Your task to perform on an android device: Set the phone to "Do not disturb". Image 0: 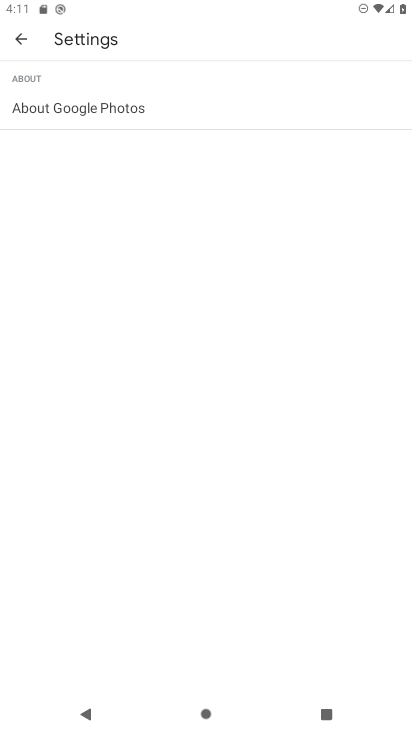
Step 0: press home button
Your task to perform on an android device: Set the phone to "Do not disturb". Image 1: 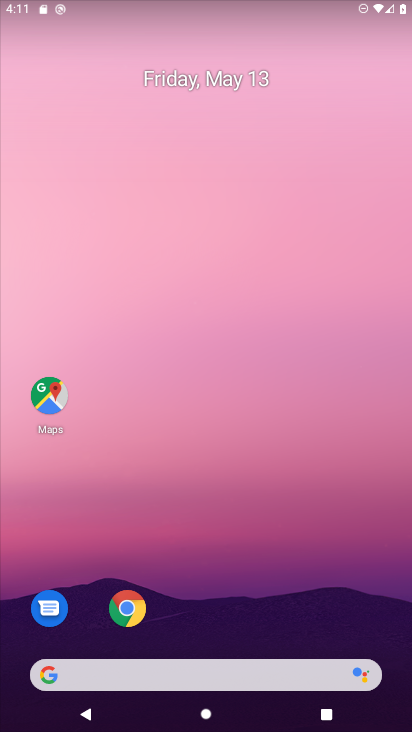
Step 1: drag from (269, 621) to (311, 8)
Your task to perform on an android device: Set the phone to "Do not disturb". Image 2: 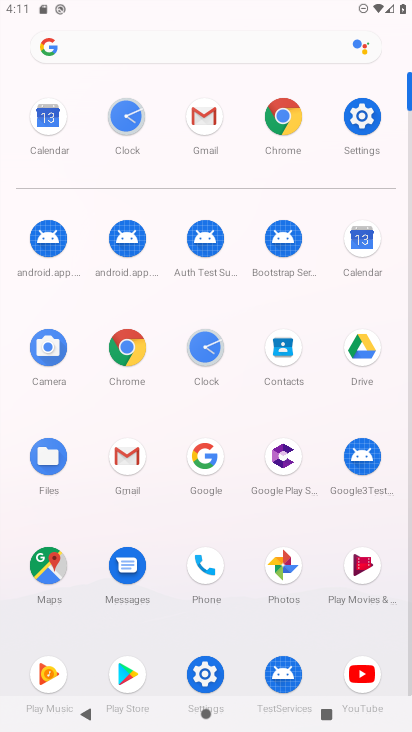
Step 2: click (363, 123)
Your task to perform on an android device: Set the phone to "Do not disturb". Image 3: 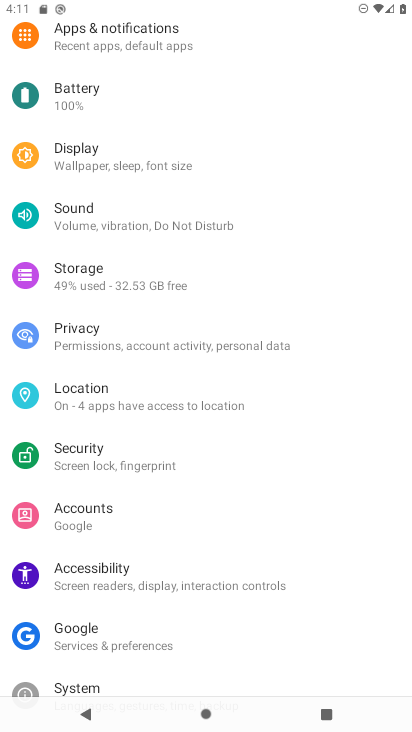
Step 3: drag from (279, 158) to (301, 667)
Your task to perform on an android device: Set the phone to "Do not disturb". Image 4: 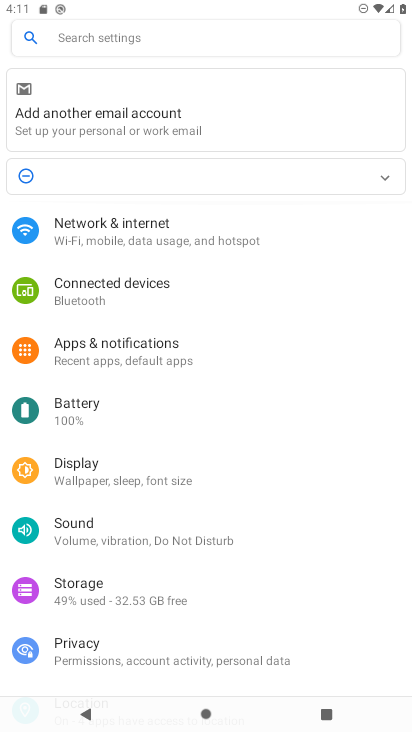
Step 4: drag from (210, 633) to (201, 155)
Your task to perform on an android device: Set the phone to "Do not disturb". Image 5: 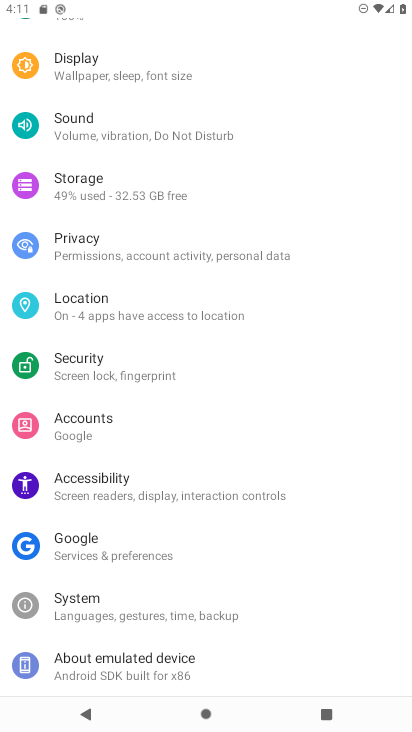
Step 5: click (97, 122)
Your task to perform on an android device: Set the phone to "Do not disturb". Image 6: 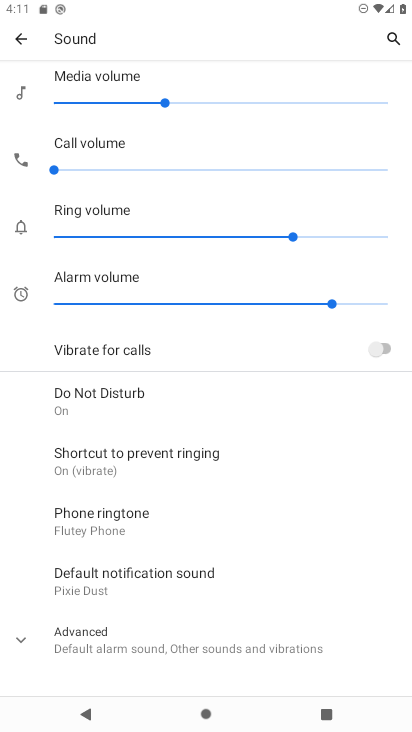
Step 6: drag from (173, 599) to (167, 172)
Your task to perform on an android device: Set the phone to "Do not disturb". Image 7: 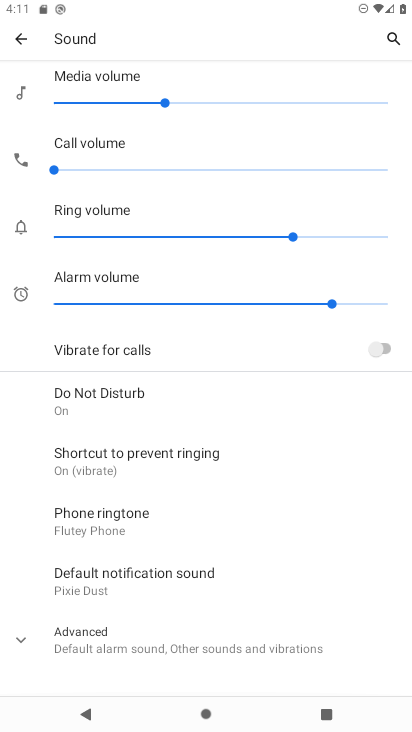
Step 7: click (129, 382)
Your task to perform on an android device: Set the phone to "Do not disturb". Image 8: 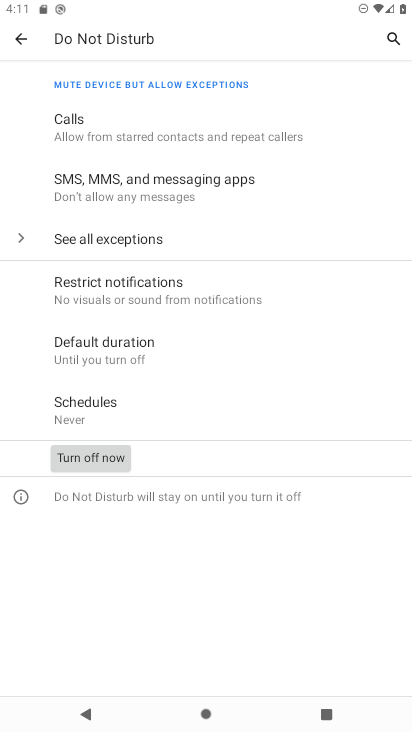
Step 8: task complete